Your task to perform on an android device: delete browsing data in the chrome app Image 0: 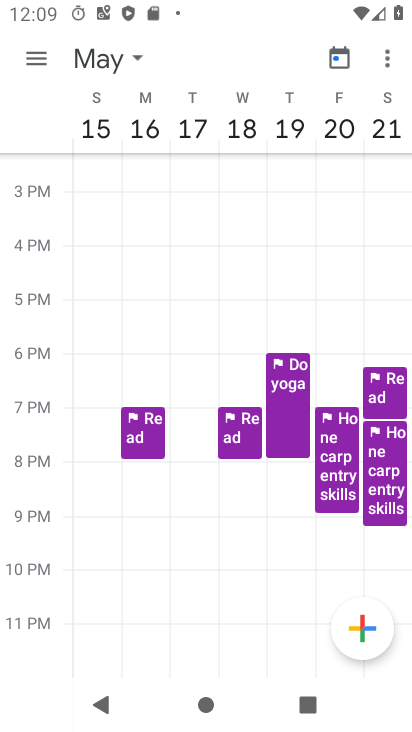
Step 0: press home button
Your task to perform on an android device: delete browsing data in the chrome app Image 1: 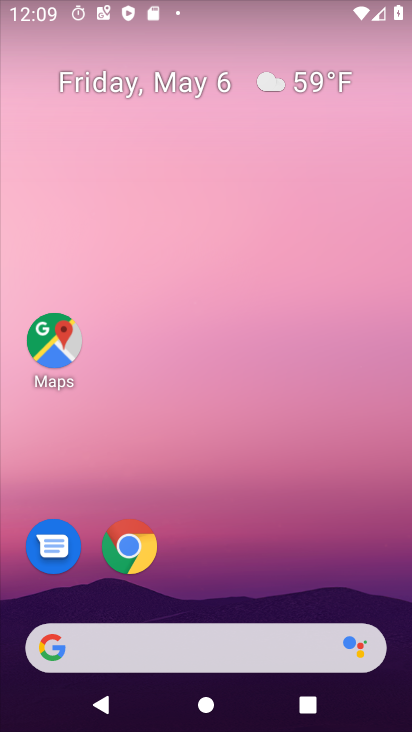
Step 1: click (135, 545)
Your task to perform on an android device: delete browsing data in the chrome app Image 2: 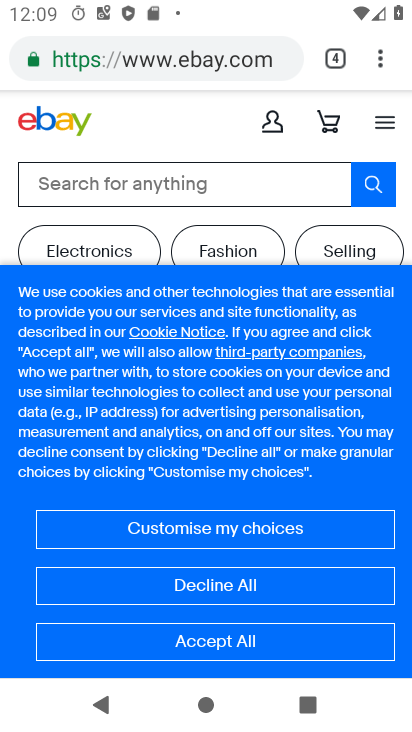
Step 2: click (382, 57)
Your task to perform on an android device: delete browsing data in the chrome app Image 3: 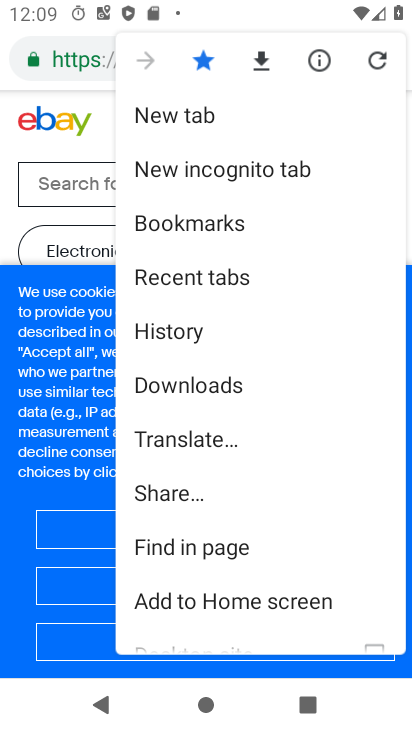
Step 3: click (184, 336)
Your task to perform on an android device: delete browsing data in the chrome app Image 4: 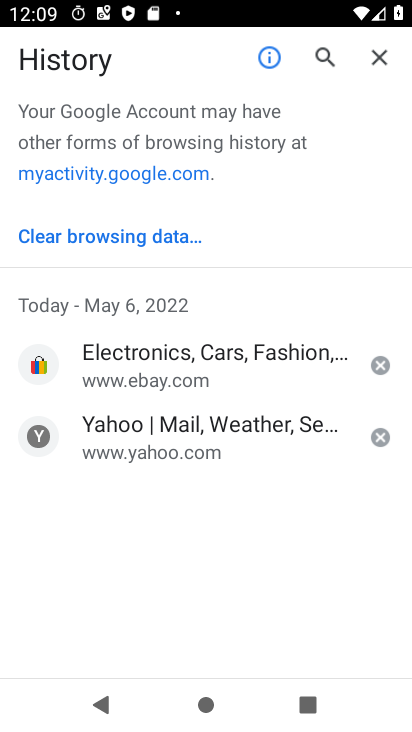
Step 4: click (139, 238)
Your task to perform on an android device: delete browsing data in the chrome app Image 5: 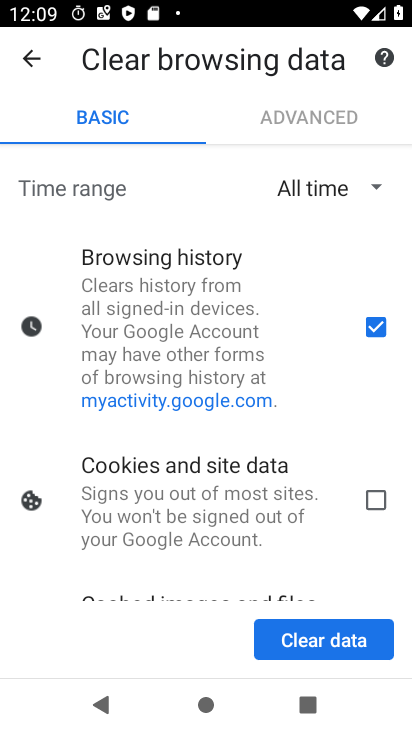
Step 5: click (334, 648)
Your task to perform on an android device: delete browsing data in the chrome app Image 6: 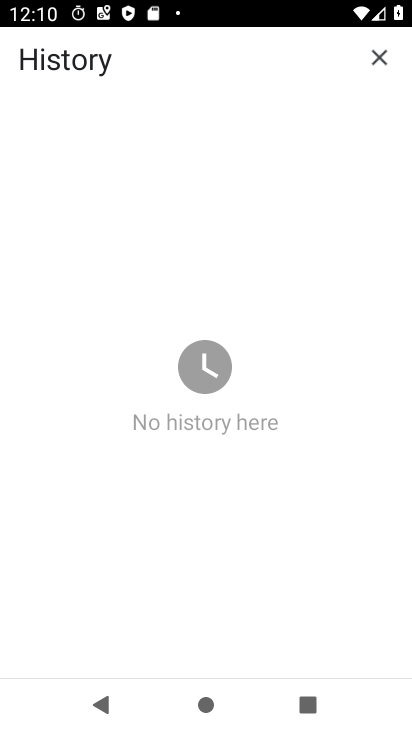
Step 6: task complete